Your task to perform on an android device: delete browsing data in the chrome app Image 0: 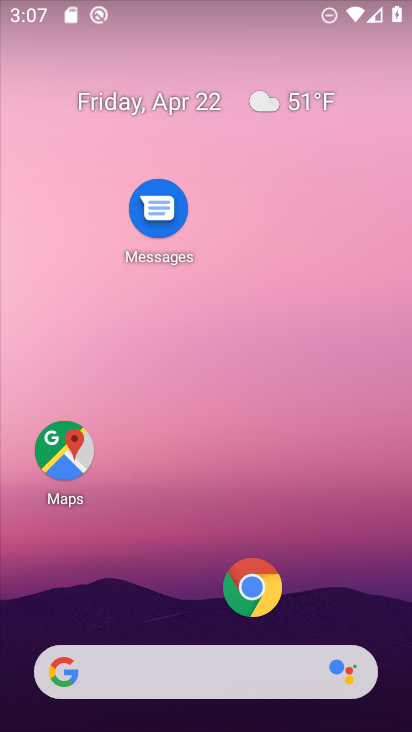
Step 0: click (247, 596)
Your task to perform on an android device: delete browsing data in the chrome app Image 1: 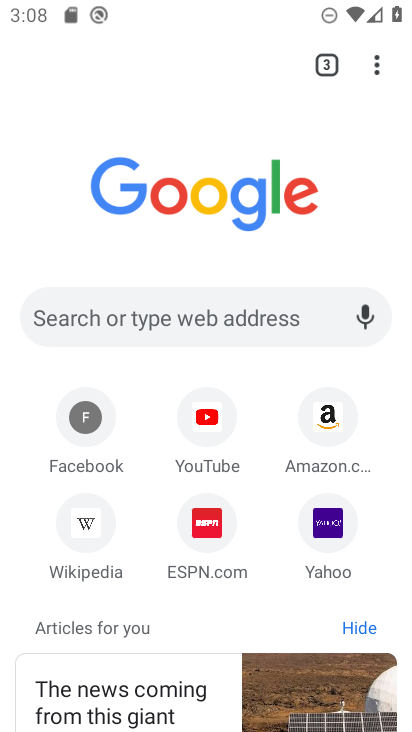
Step 1: drag from (377, 73) to (175, 436)
Your task to perform on an android device: delete browsing data in the chrome app Image 2: 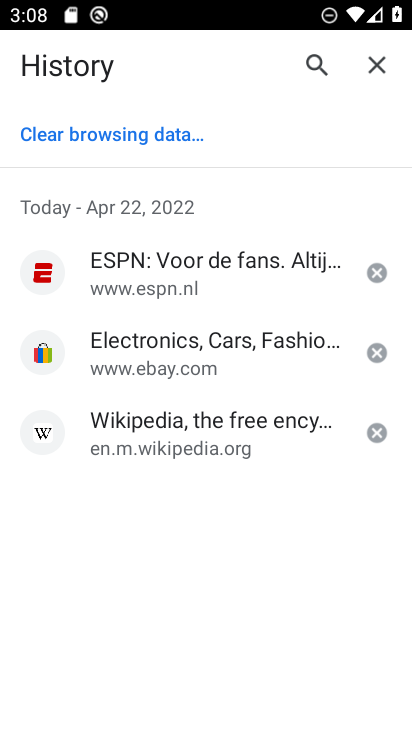
Step 2: click (86, 137)
Your task to perform on an android device: delete browsing data in the chrome app Image 3: 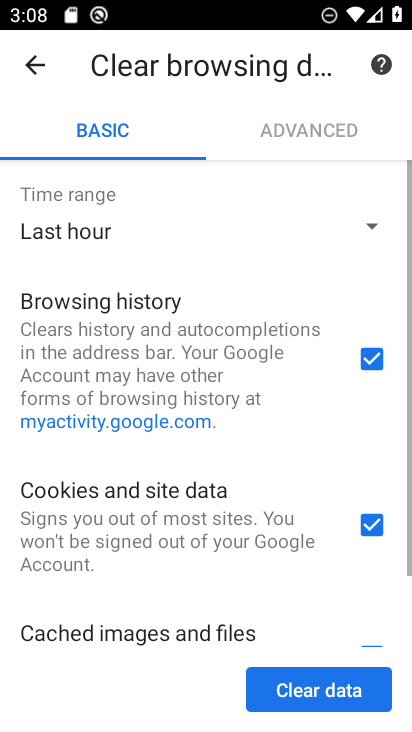
Step 3: click (309, 700)
Your task to perform on an android device: delete browsing data in the chrome app Image 4: 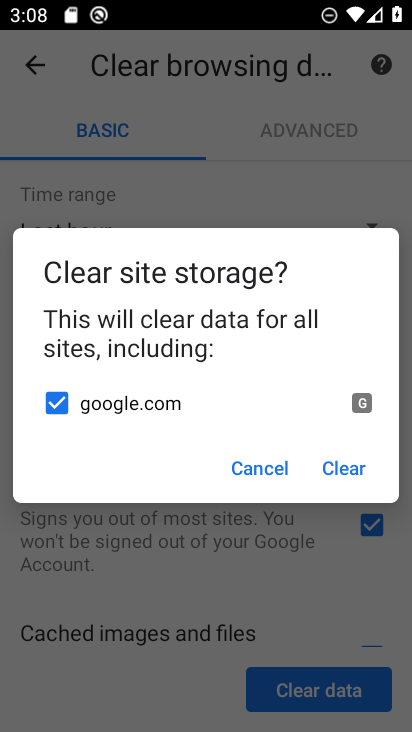
Step 4: click (327, 470)
Your task to perform on an android device: delete browsing data in the chrome app Image 5: 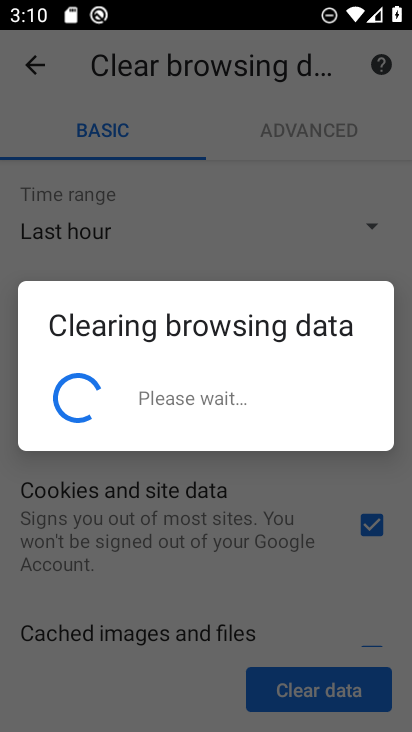
Step 5: task complete